Your task to perform on an android device: toggle data saver in the chrome app Image 0: 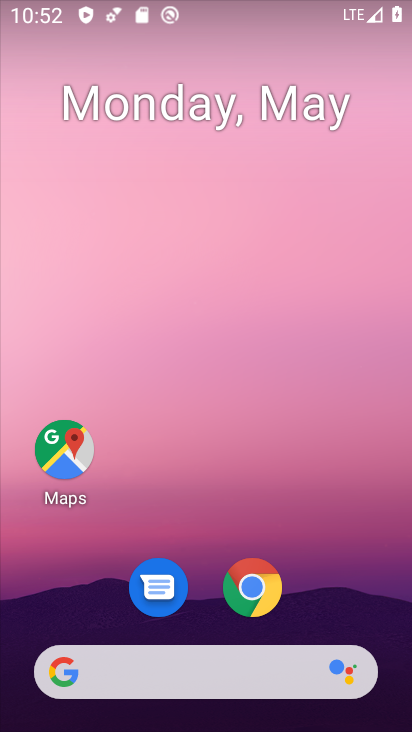
Step 0: click (267, 597)
Your task to perform on an android device: toggle data saver in the chrome app Image 1: 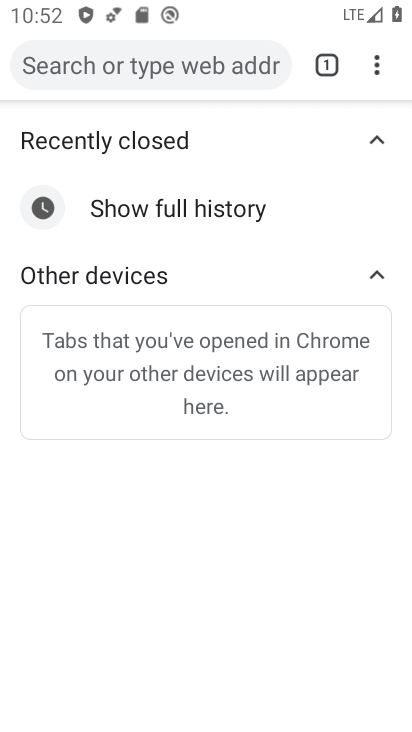
Step 1: click (369, 69)
Your task to perform on an android device: toggle data saver in the chrome app Image 2: 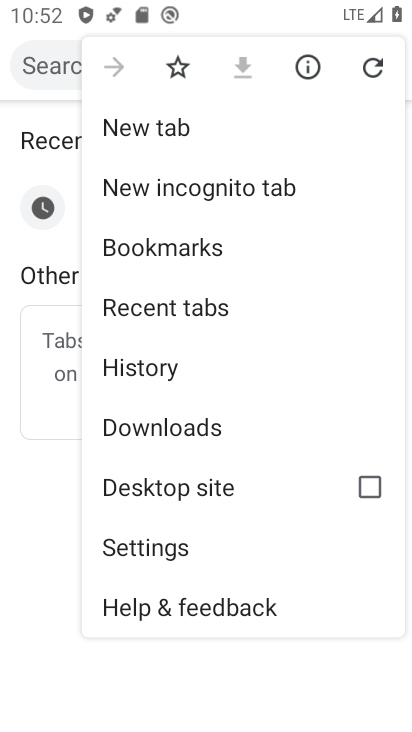
Step 2: click (229, 556)
Your task to perform on an android device: toggle data saver in the chrome app Image 3: 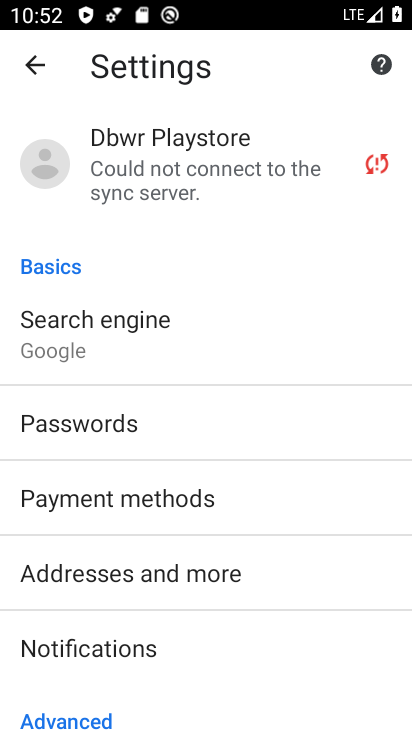
Step 3: drag from (230, 678) to (198, 332)
Your task to perform on an android device: toggle data saver in the chrome app Image 4: 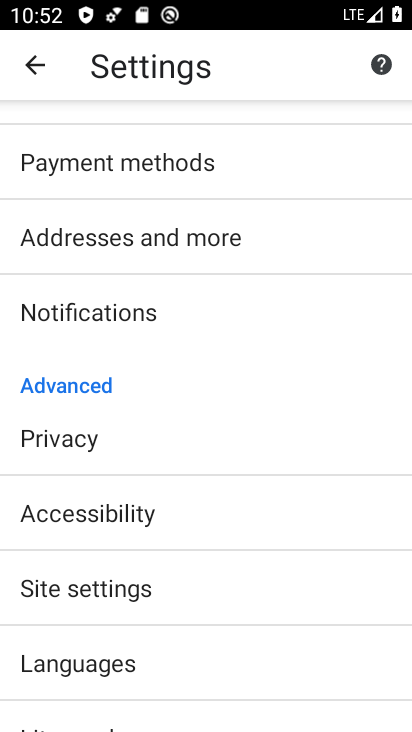
Step 4: drag from (241, 692) to (185, 425)
Your task to perform on an android device: toggle data saver in the chrome app Image 5: 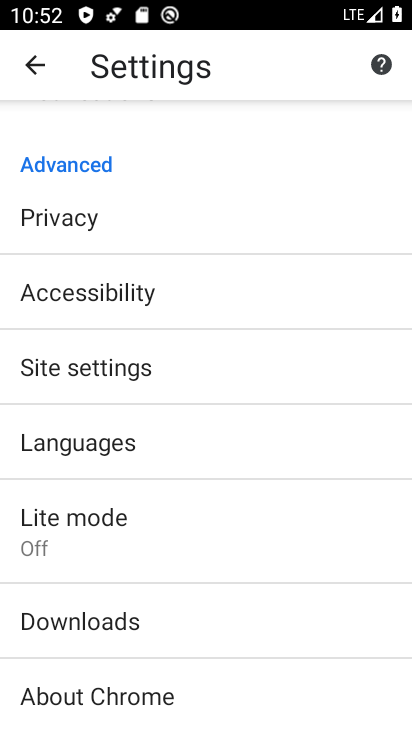
Step 5: click (169, 523)
Your task to perform on an android device: toggle data saver in the chrome app Image 6: 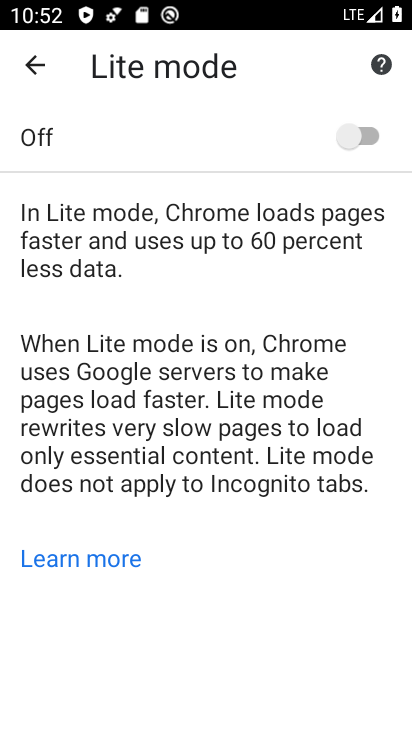
Step 6: click (352, 140)
Your task to perform on an android device: toggle data saver in the chrome app Image 7: 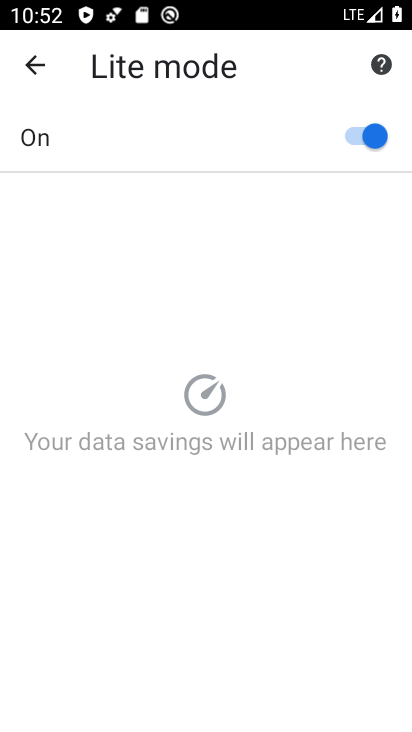
Step 7: task complete